Your task to perform on an android device: install app "Move to iOS" Image 0: 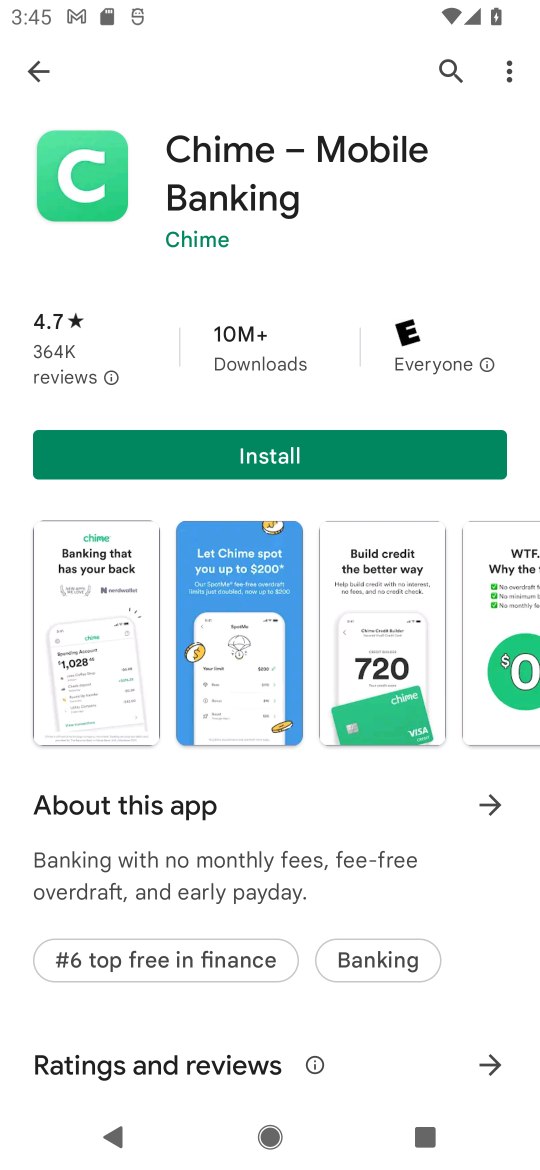
Step 0: click (36, 62)
Your task to perform on an android device: install app "Move to iOS" Image 1: 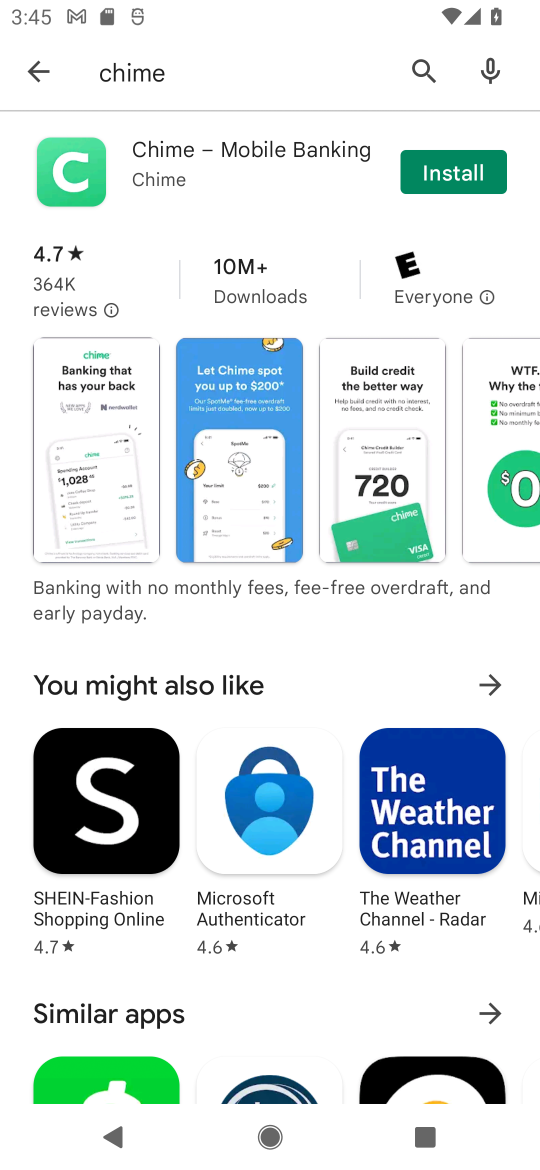
Step 1: click (173, 60)
Your task to perform on an android device: install app "Move to iOS" Image 2: 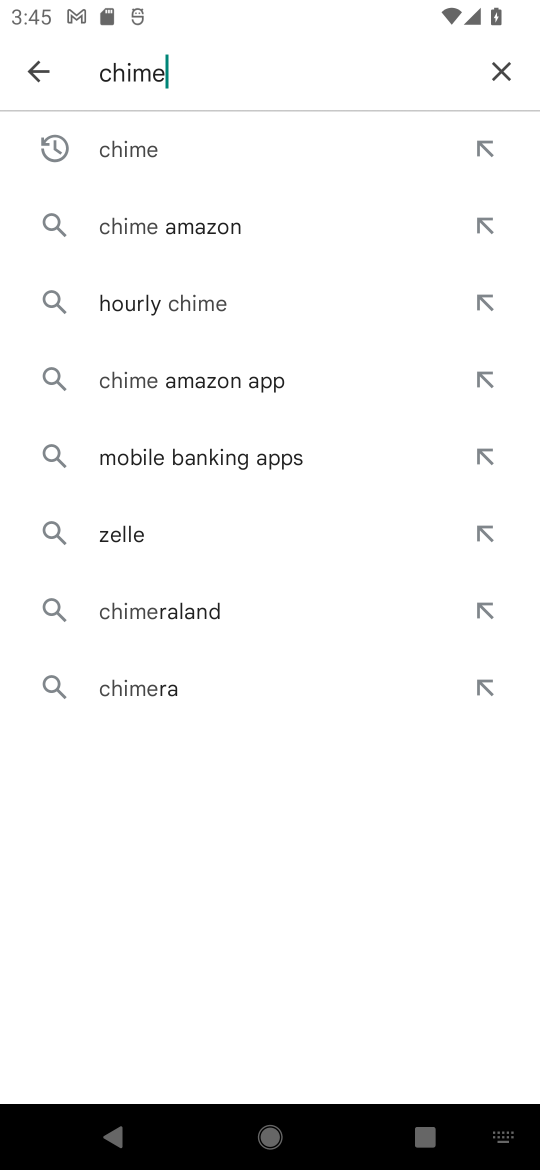
Step 2: click (499, 65)
Your task to perform on an android device: install app "Move to iOS" Image 3: 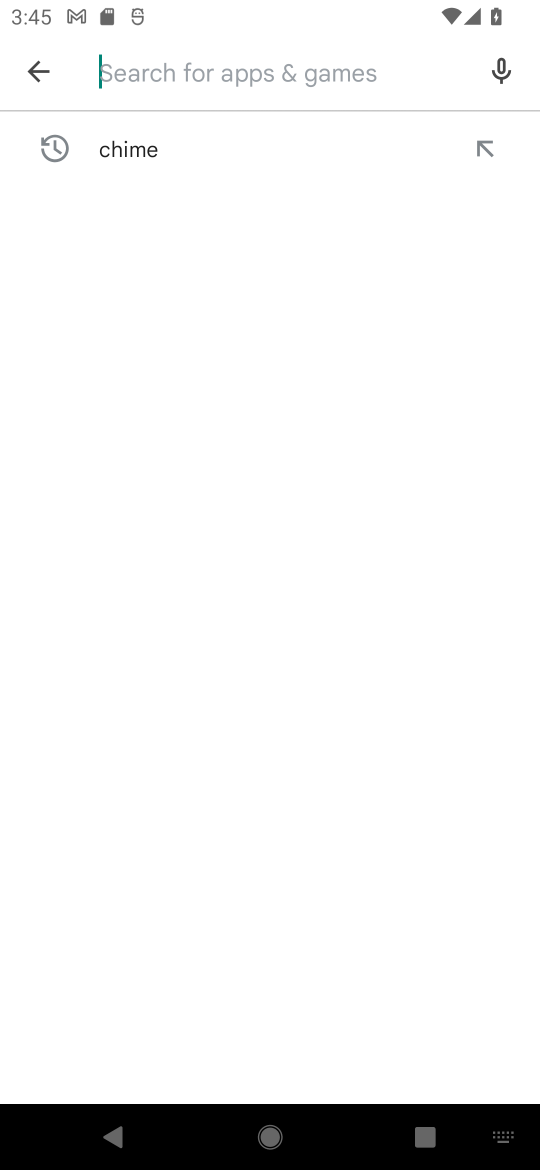
Step 3: type "move to ios"
Your task to perform on an android device: install app "Move to iOS" Image 4: 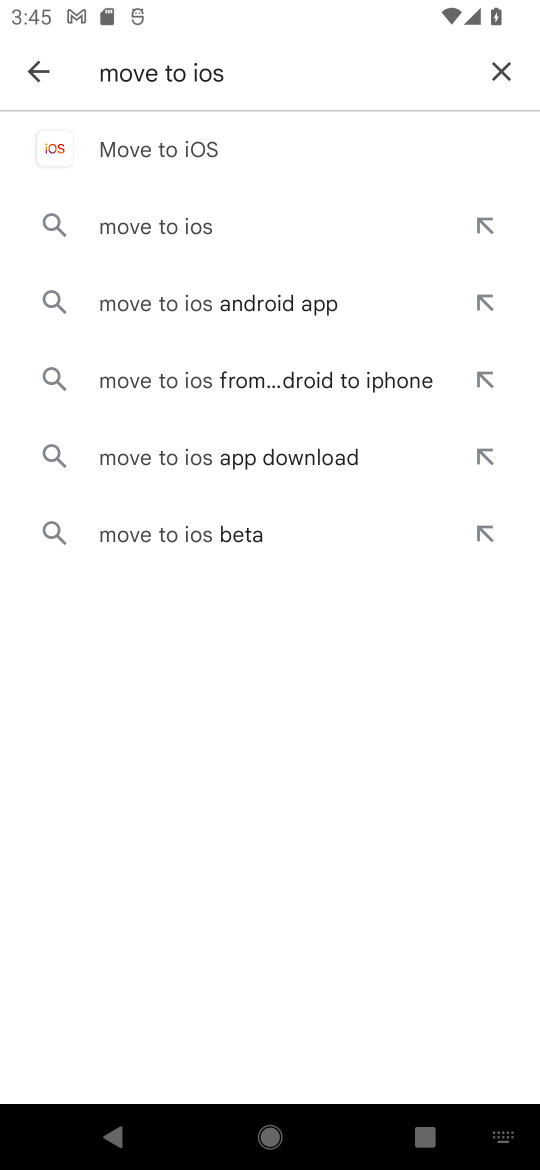
Step 4: click (203, 159)
Your task to perform on an android device: install app "Move to iOS" Image 5: 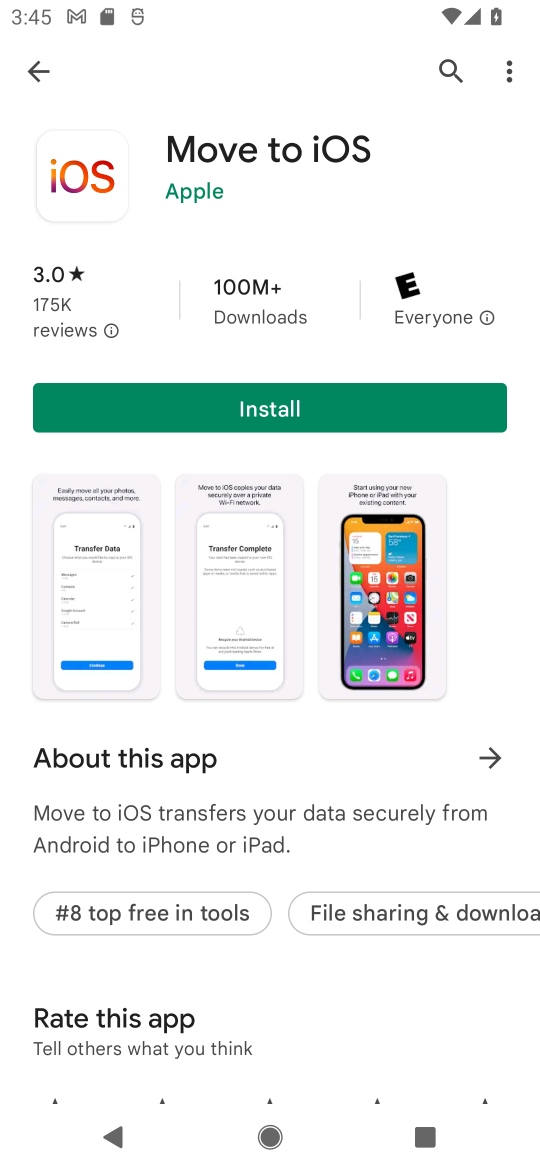
Step 5: click (289, 410)
Your task to perform on an android device: install app "Move to iOS" Image 6: 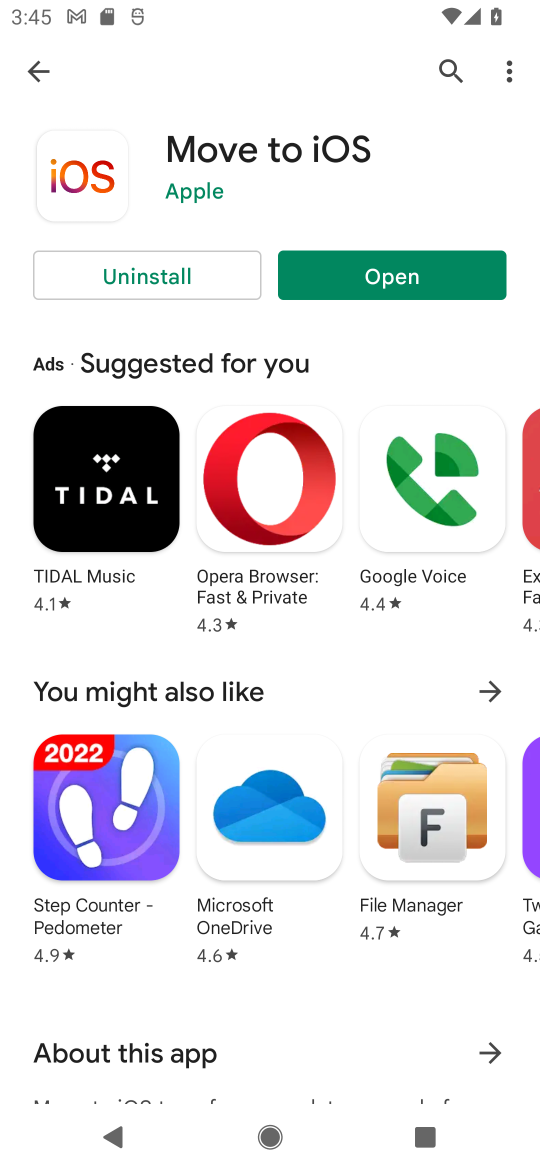
Step 6: task complete